Your task to perform on an android device: Go to accessibility settings Image 0: 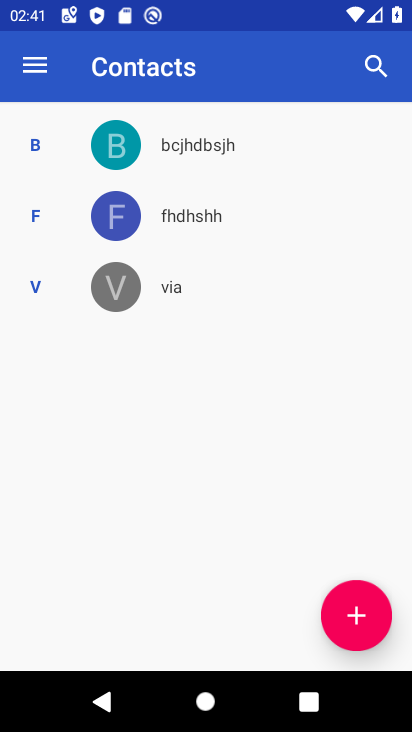
Step 0: press home button
Your task to perform on an android device: Go to accessibility settings Image 1: 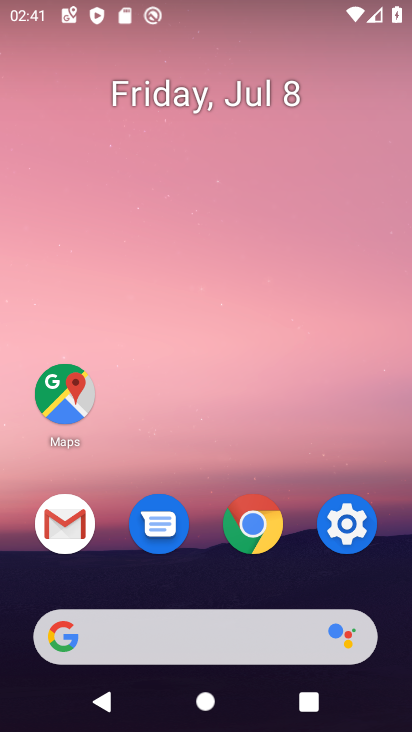
Step 1: click (324, 531)
Your task to perform on an android device: Go to accessibility settings Image 2: 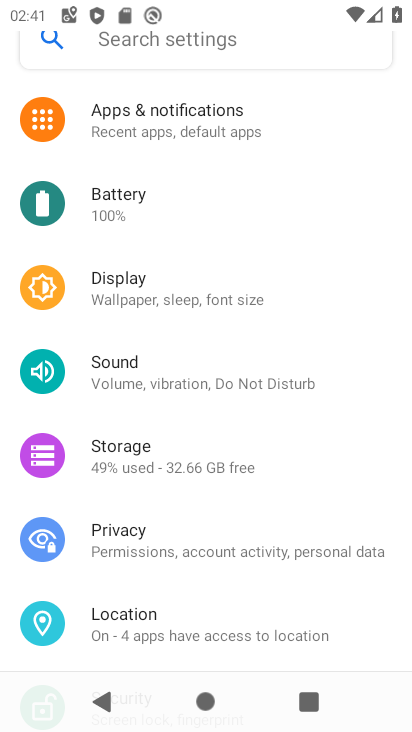
Step 2: click (135, 47)
Your task to perform on an android device: Go to accessibility settings Image 3: 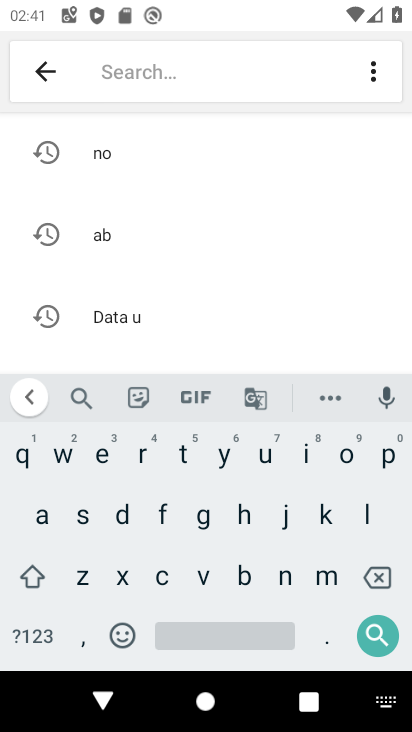
Step 3: click (38, 526)
Your task to perform on an android device: Go to accessibility settings Image 4: 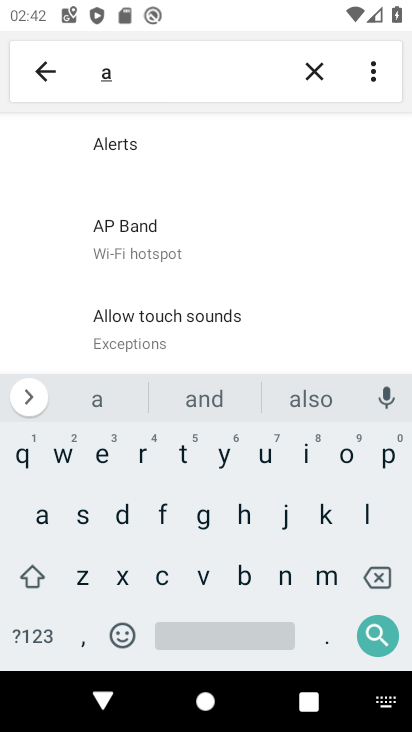
Step 4: click (156, 570)
Your task to perform on an android device: Go to accessibility settings Image 5: 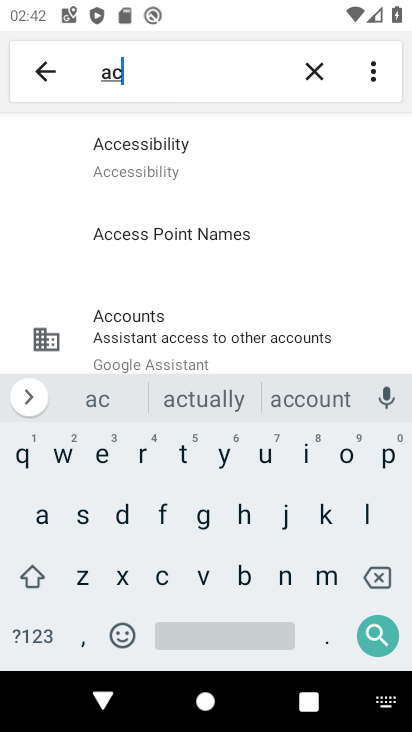
Step 5: click (174, 147)
Your task to perform on an android device: Go to accessibility settings Image 6: 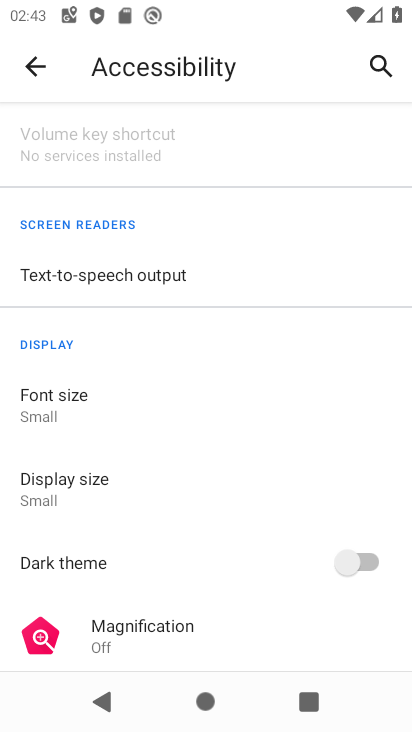
Step 6: task complete